Your task to perform on an android device: change the clock display to show seconds Image 0: 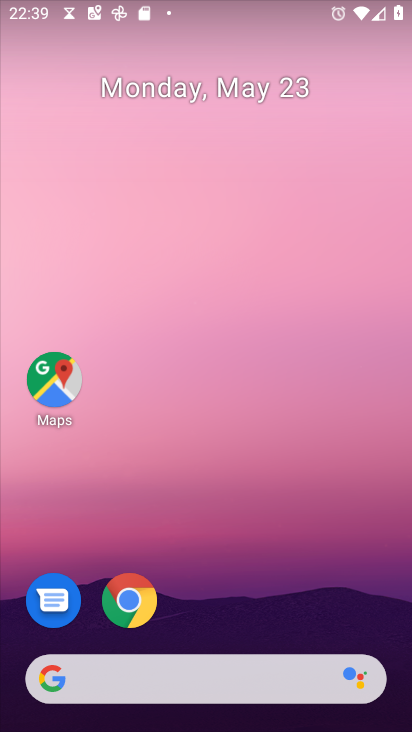
Step 0: drag from (215, 726) to (224, 248)
Your task to perform on an android device: change the clock display to show seconds Image 1: 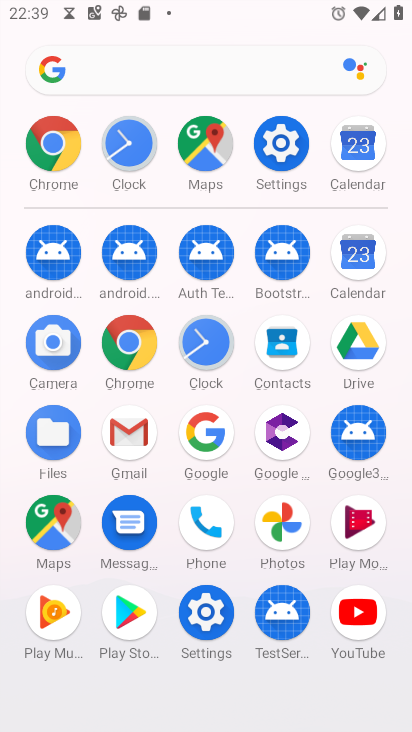
Step 1: click (203, 343)
Your task to perform on an android device: change the clock display to show seconds Image 2: 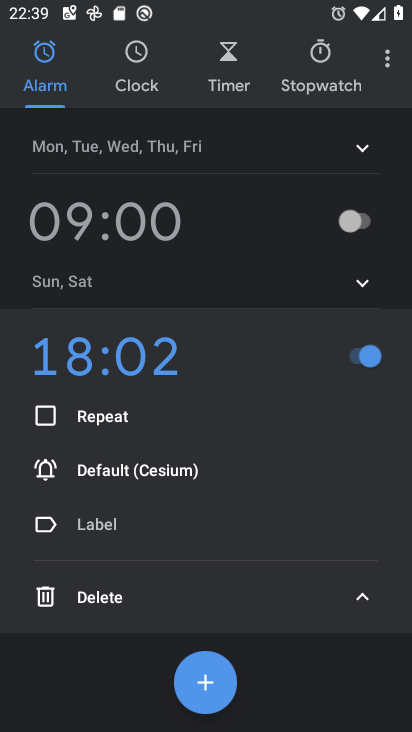
Step 2: click (389, 63)
Your task to perform on an android device: change the clock display to show seconds Image 3: 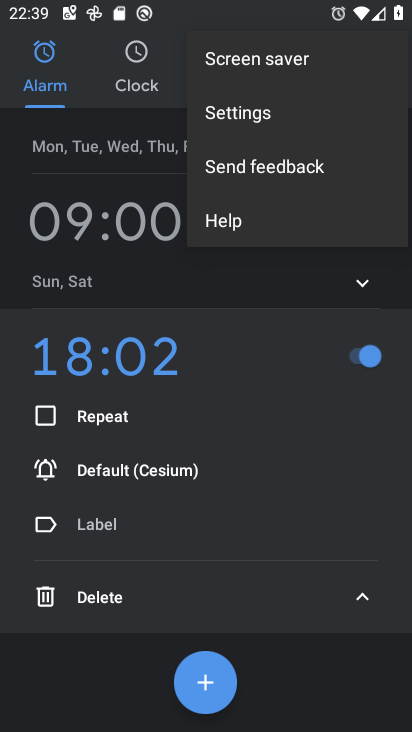
Step 3: click (252, 112)
Your task to perform on an android device: change the clock display to show seconds Image 4: 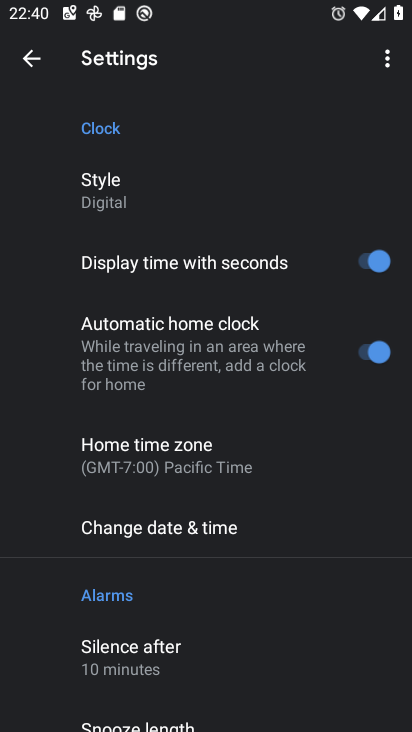
Step 4: task complete